Your task to perform on an android device: What is the news today? Image 0: 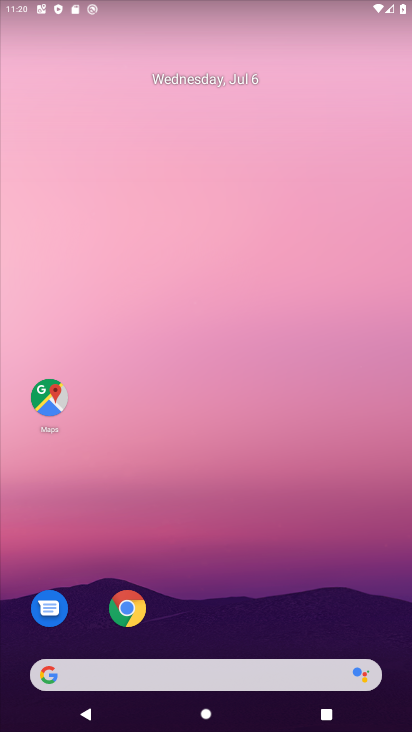
Step 0: drag from (307, 561) to (394, 298)
Your task to perform on an android device: What is the news today? Image 1: 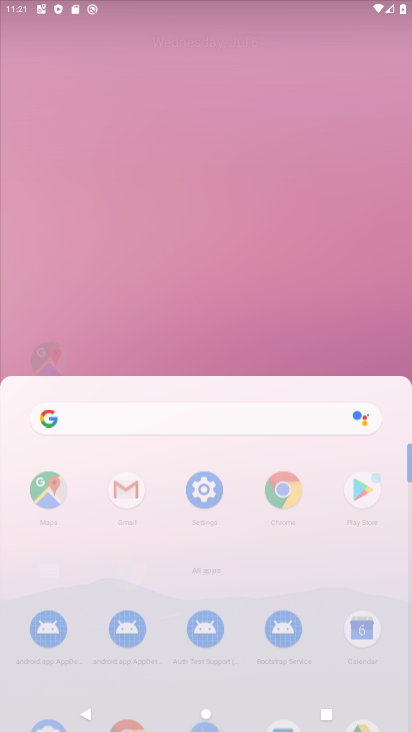
Step 1: click (273, 188)
Your task to perform on an android device: What is the news today? Image 2: 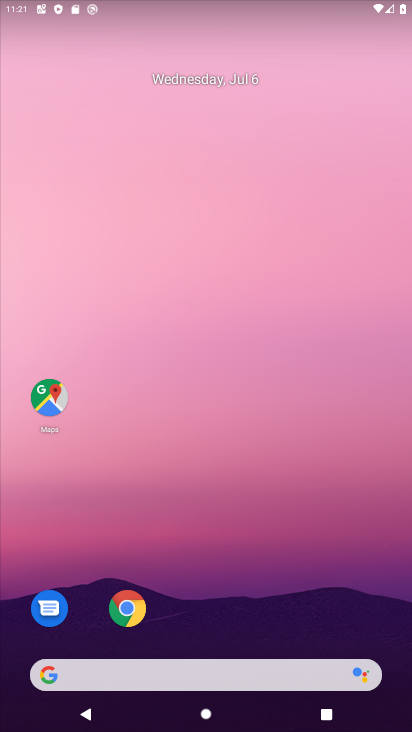
Step 2: click (123, 603)
Your task to perform on an android device: What is the news today? Image 3: 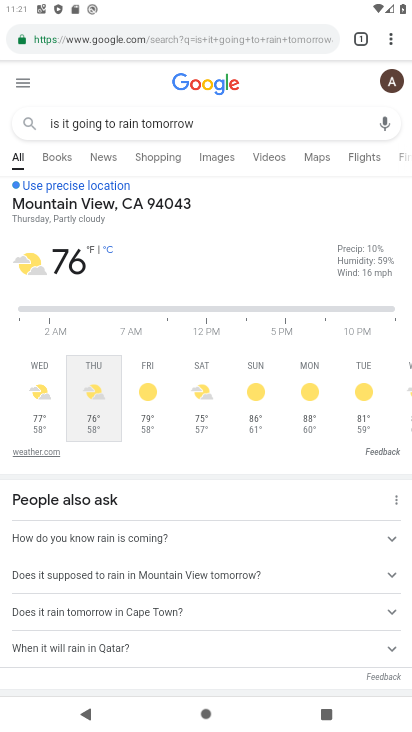
Step 3: click (142, 36)
Your task to perform on an android device: What is the news today? Image 4: 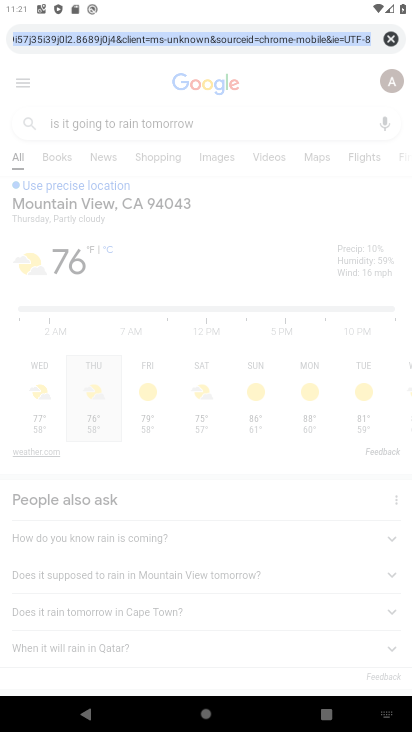
Step 4: click (393, 43)
Your task to perform on an android device: What is the news today? Image 5: 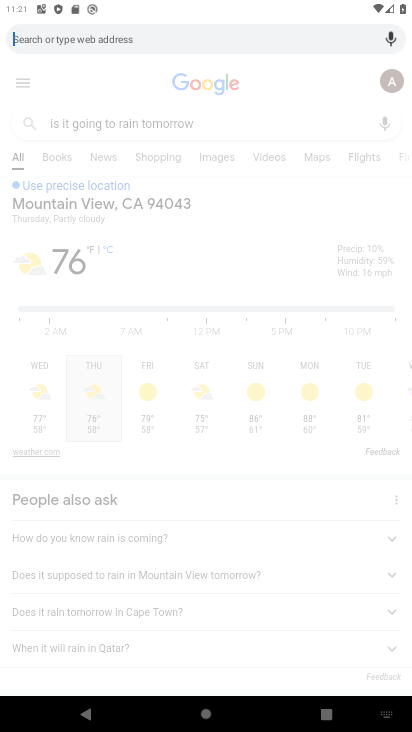
Step 5: type "what is the news today?"
Your task to perform on an android device: What is the news today? Image 6: 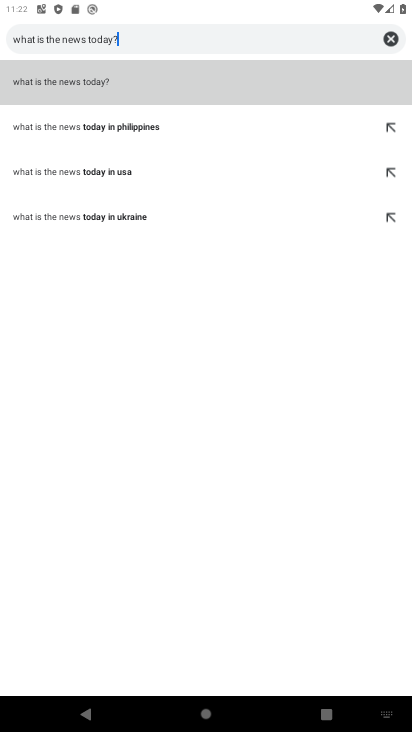
Step 6: click (69, 83)
Your task to perform on an android device: What is the news today? Image 7: 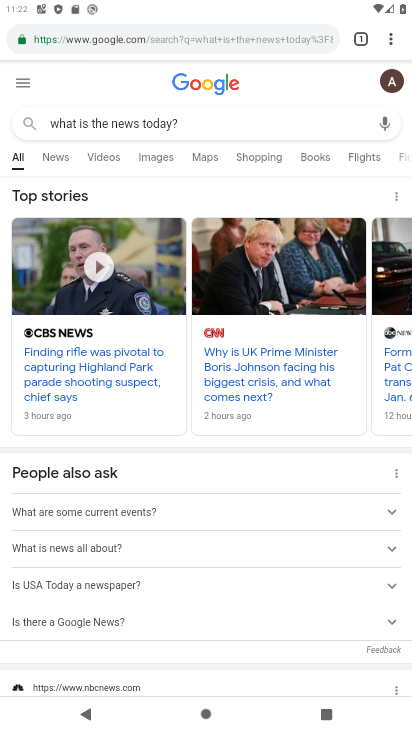
Step 7: task complete